Your task to perform on an android device: What's the weather going to be this weekend? Image 0: 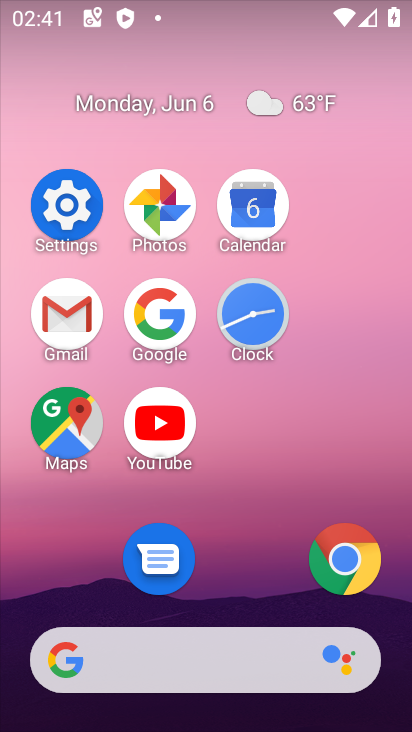
Step 0: click (169, 307)
Your task to perform on an android device: What's the weather going to be this weekend? Image 1: 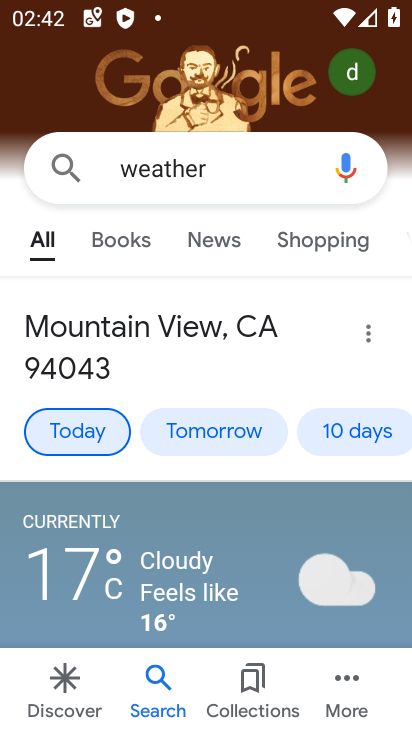
Step 1: click (376, 416)
Your task to perform on an android device: What's the weather going to be this weekend? Image 2: 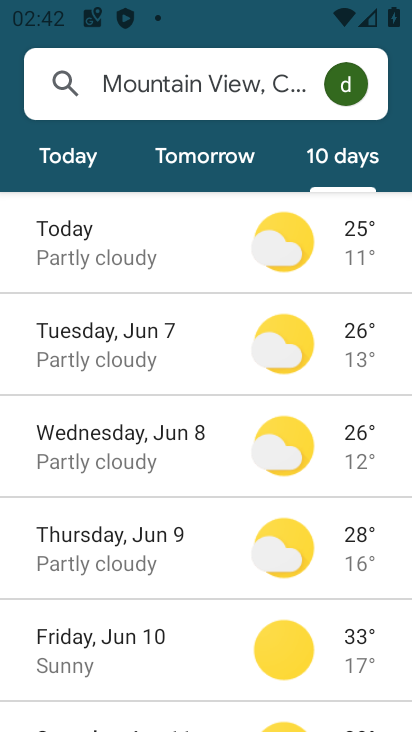
Step 2: task complete